Your task to perform on an android device: Open the calendar app, open the side menu, and click the "Day" option Image 0: 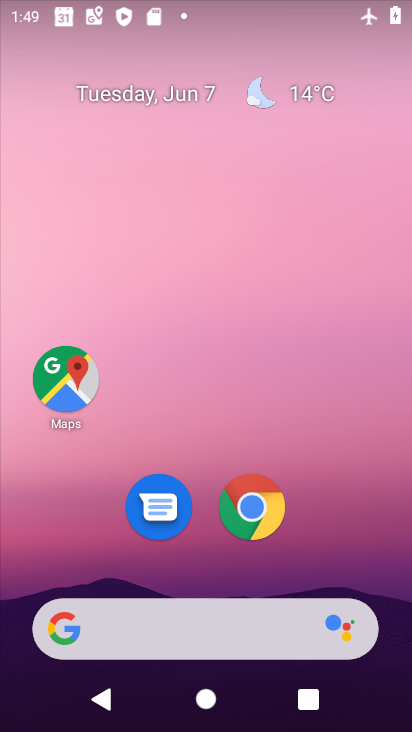
Step 0: drag from (400, 613) to (368, 62)
Your task to perform on an android device: Open the calendar app, open the side menu, and click the "Day" option Image 1: 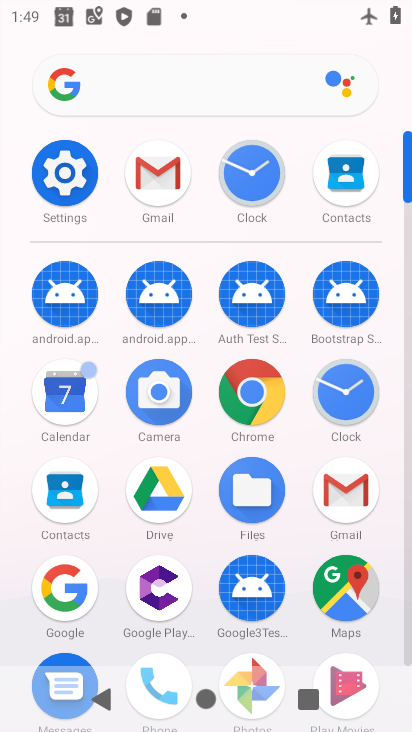
Step 1: click (409, 647)
Your task to perform on an android device: Open the calendar app, open the side menu, and click the "Day" option Image 2: 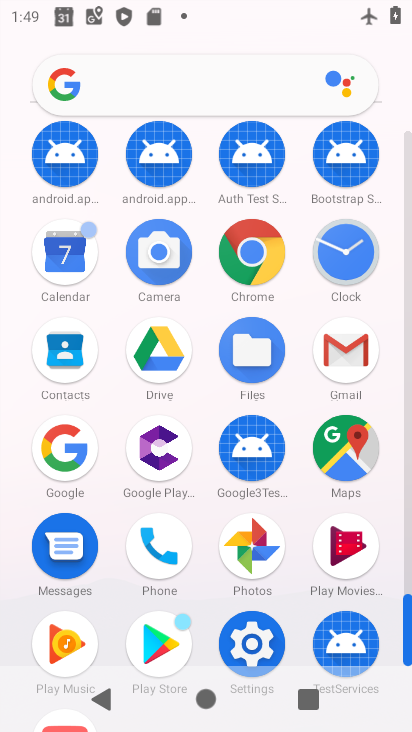
Step 2: click (62, 245)
Your task to perform on an android device: Open the calendar app, open the side menu, and click the "Day" option Image 3: 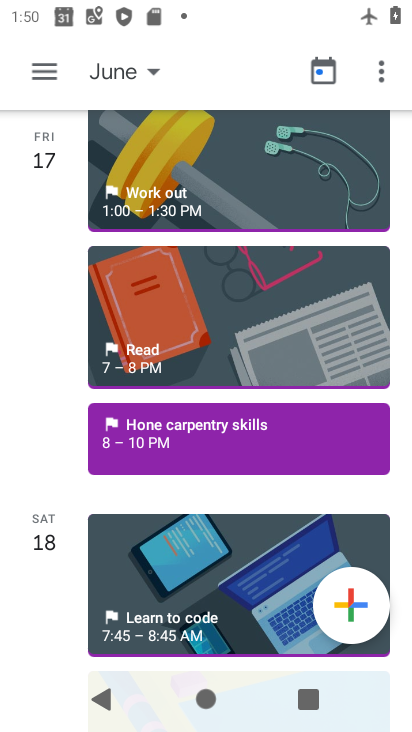
Step 3: click (38, 64)
Your task to perform on an android device: Open the calendar app, open the side menu, and click the "Day" option Image 4: 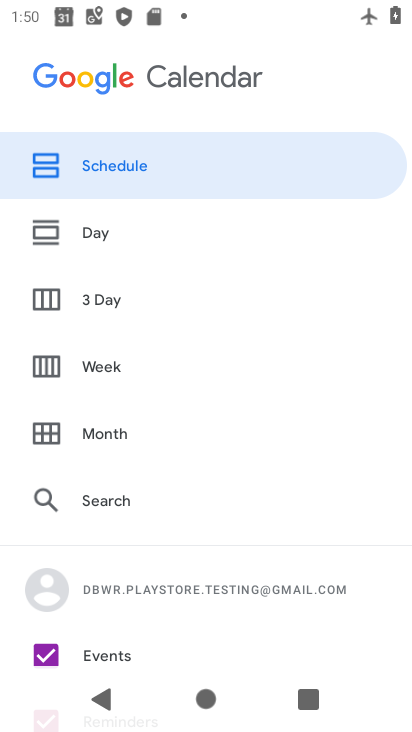
Step 4: click (94, 226)
Your task to perform on an android device: Open the calendar app, open the side menu, and click the "Day" option Image 5: 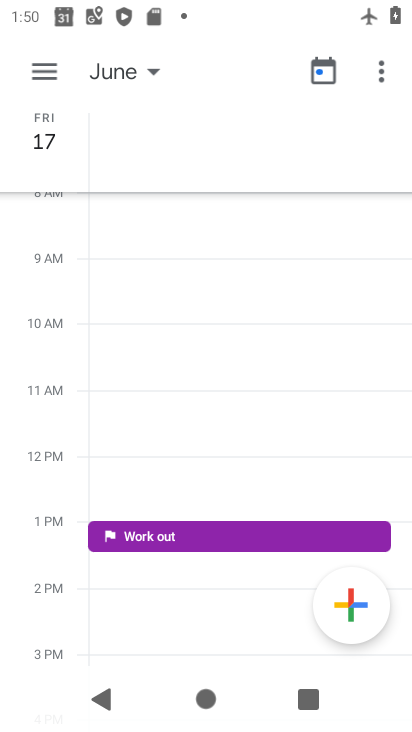
Step 5: task complete